Your task to perform on an android device: Open Youtube and go to the subscriptions tab Image 0: 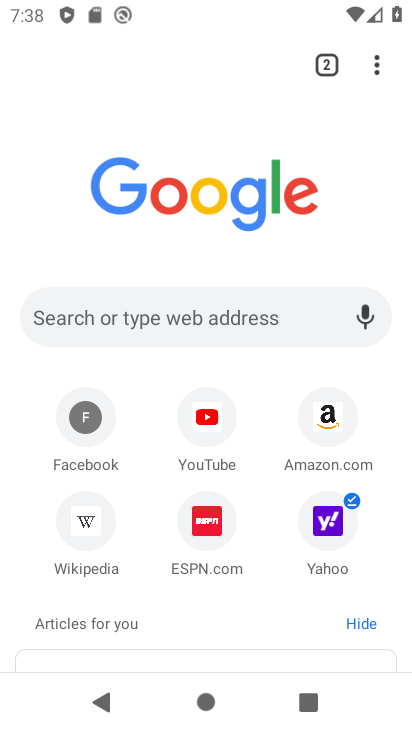
Step 0: press home button
Your task to perform on an android device: Open Youtube and go to the subscriptions tab Image 1: 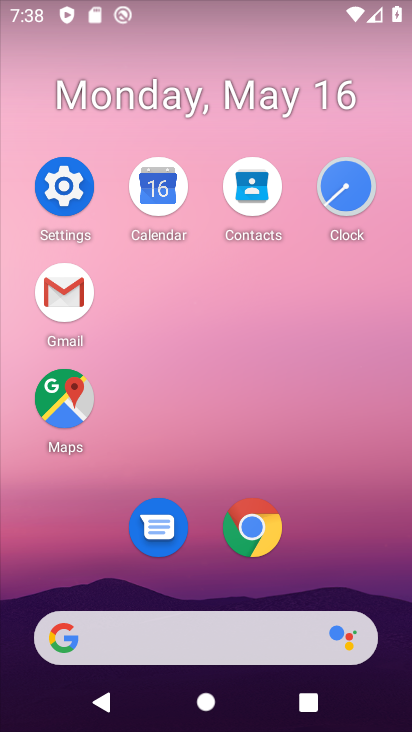
Step 1: drag from (329, 414) to (310, 78)
Your task to perform on an android device: Open Youtube and go to the subscriptions tab Image 2: 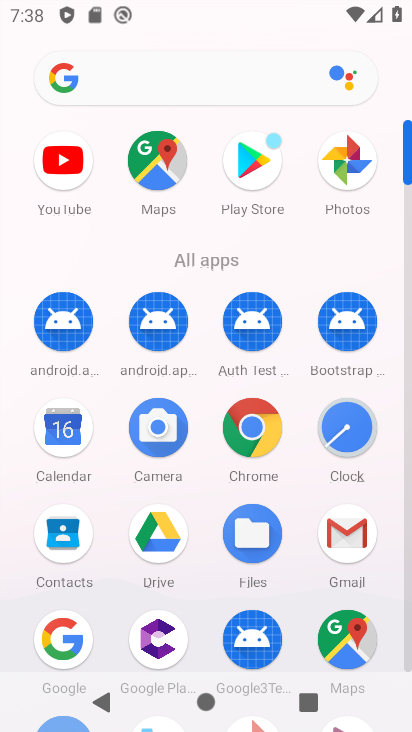
Step 2: drag from (68, 161) to (131, 303)
Your task to perform on an android device: Open Youtube and go to the subscriptions tab Image 3: 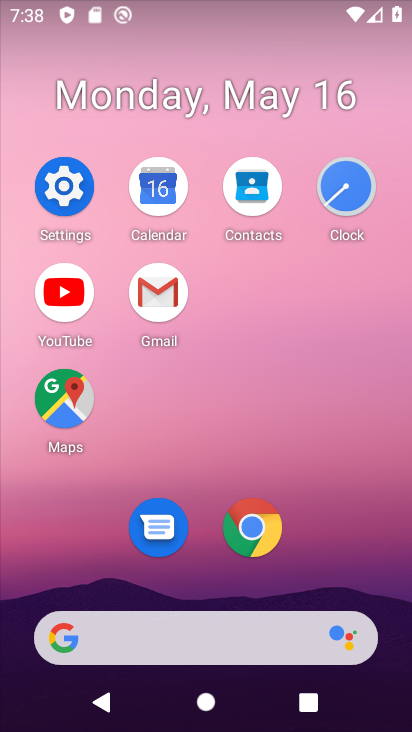
Step 3: click (71, 283)
Your task to perform on an android device: Open Youtube and go to the subscriptions tab Image 4: 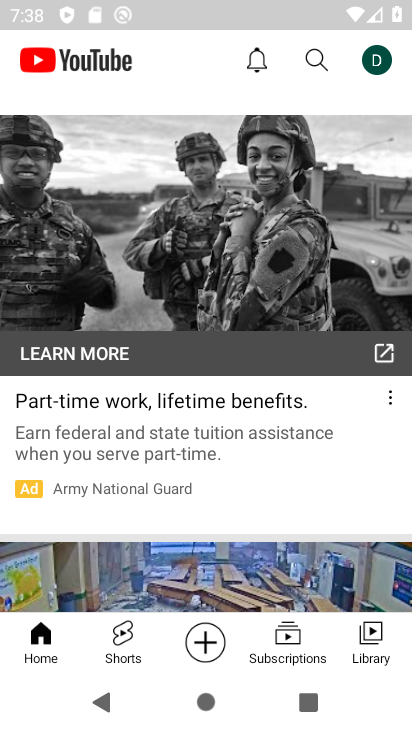
Step 4: click (297, 640)
Your task to perform on an android device: Open Youtube and go to the subscriptions tab Image 5: 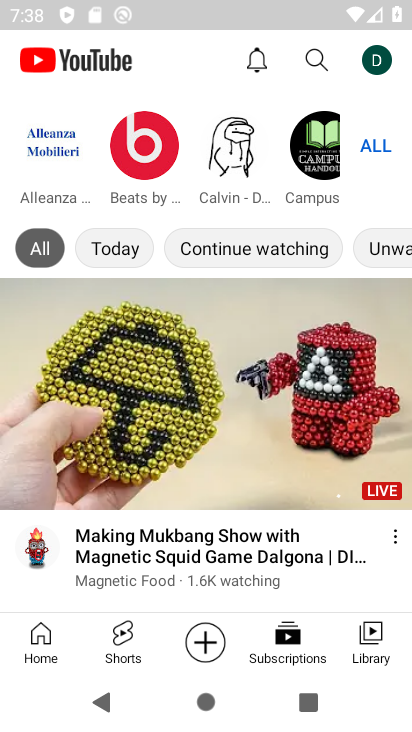
Step 5: task complete